Your task to perform on an android device: add a contact in the contacts app Image 0: 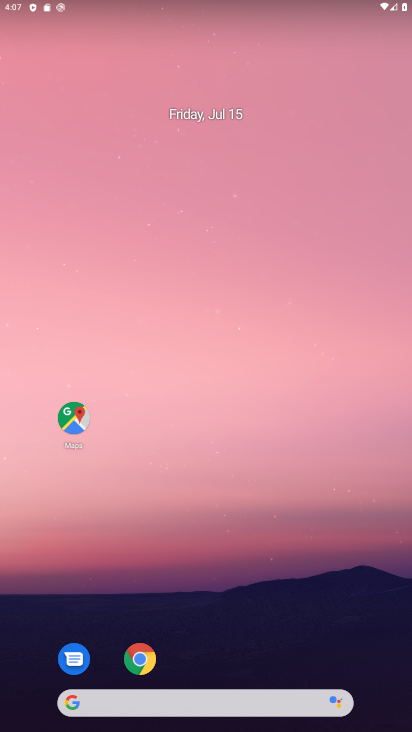
Step 0: drag from (182, 313) to (24, 595)
Your task to perform on an android device: add a contact in the contacts app Image 1: 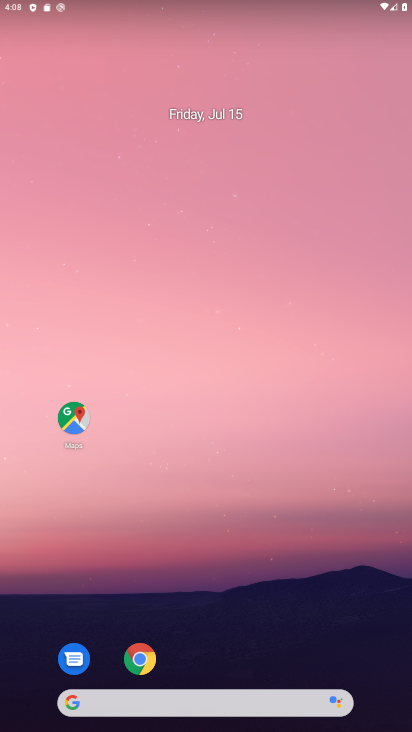
Step 1: drag from (171, 707) to (292, 9)
Your task to perform on an android device: add a contact in the contacts app Image 2: 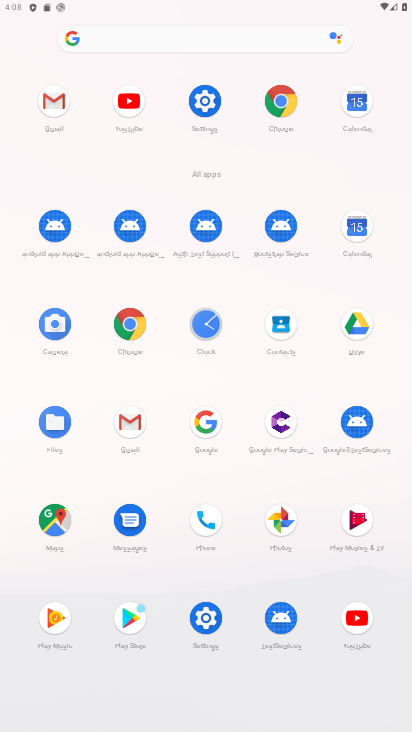
Step 2: click (283, 322)
Your task to perform on an android device: add a contact in the contacts app Image 3: 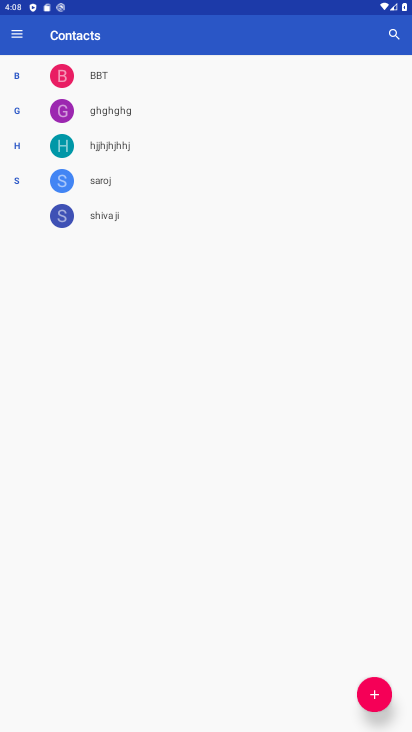
Step 3: click (388, 685)
Your task to perform on an android device: add a contact in the contacts app Image 4: 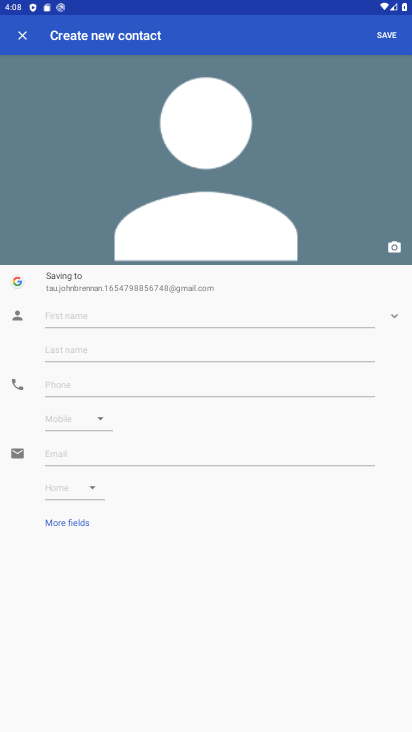
Step 4: click (237, 319)
Your task to perform on an android device: add a contact in the contacts app Image 5: 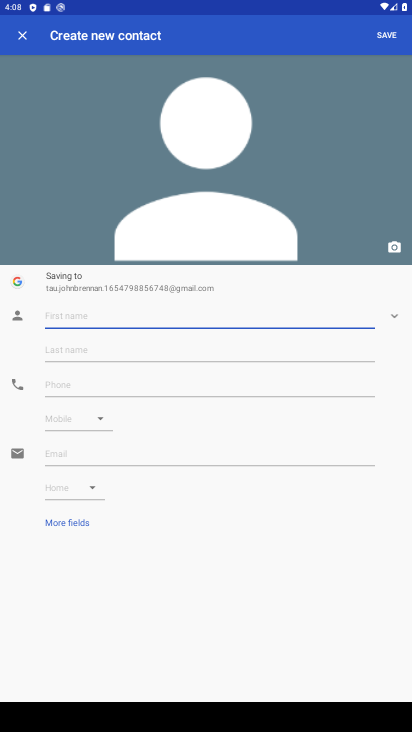
Step 5: type "gunjan"
Your task to perform on an android device: add a contact in the contacts app Image 6: 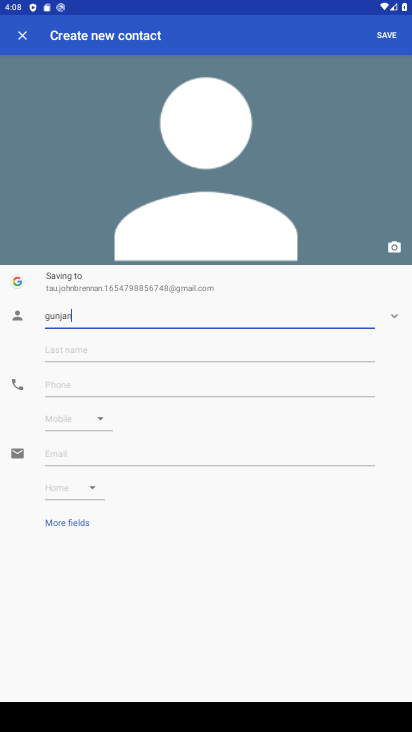
Step 6: click (91, 382)
Your task to perform on an android device: add a contact in the contacts app Image 7: 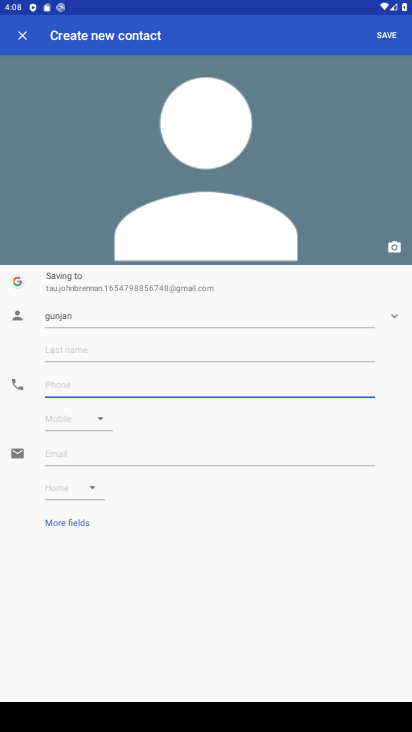
Step 7: type "9897678967"
Your task to perform on an android device: add a contact in the contacts app Image 8: 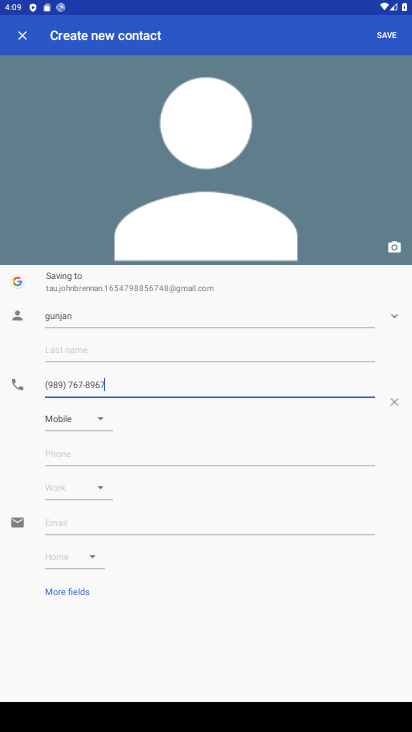
Step 8: click (391, 38)
Your task to perform on an android device: add a contact in the contacts app Image 9: 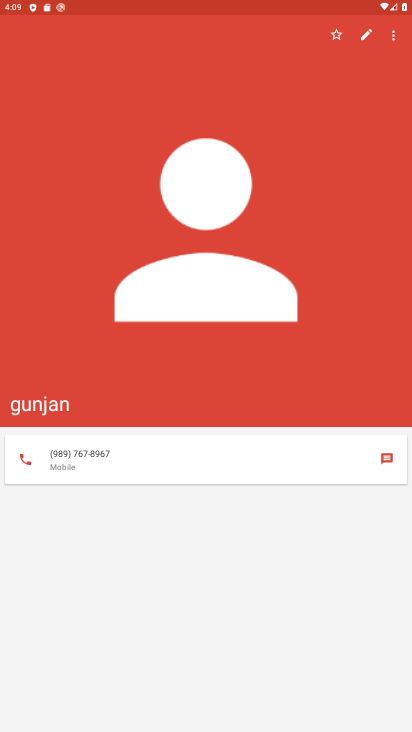
Step 9: task complete